Your task to perform on an android device: toggle translation in the chrome app Image 0: 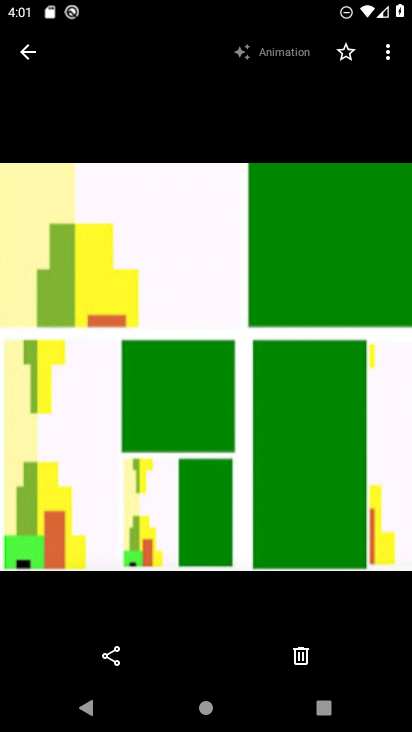
Step 0: press home button
Your task to perform on an android device: toggle translation in the chrome app Image 1: 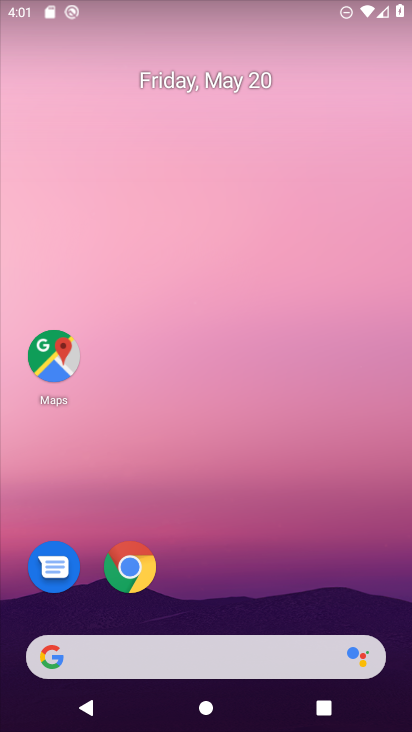
Step 1: click (129, 569)
Your task to perform on an android device: toggle translation in the chrome app Image 2: 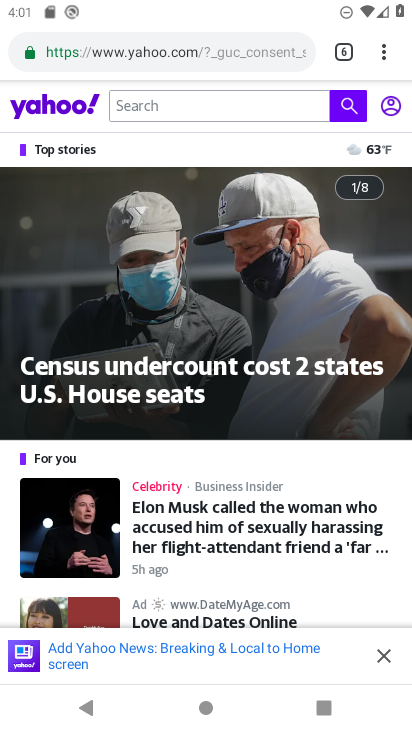
Step 2: click (383, 58)
Your task to perform on an android device: toggle translation in the chrome app Image 3: 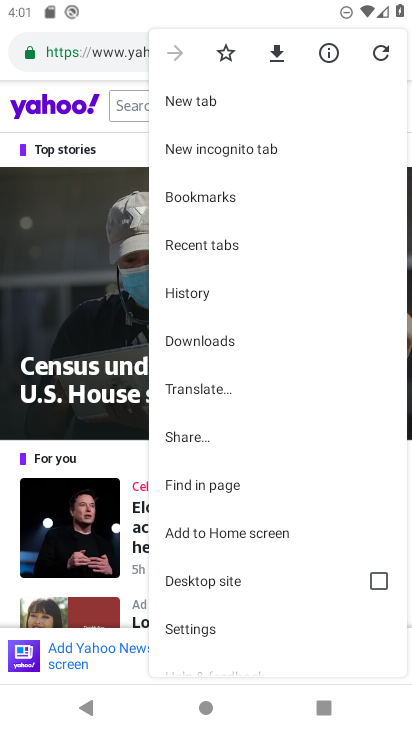
Step 3: click (192, 629)
Your task to perform on an android device: toggle translation in the chrome app Image 4: 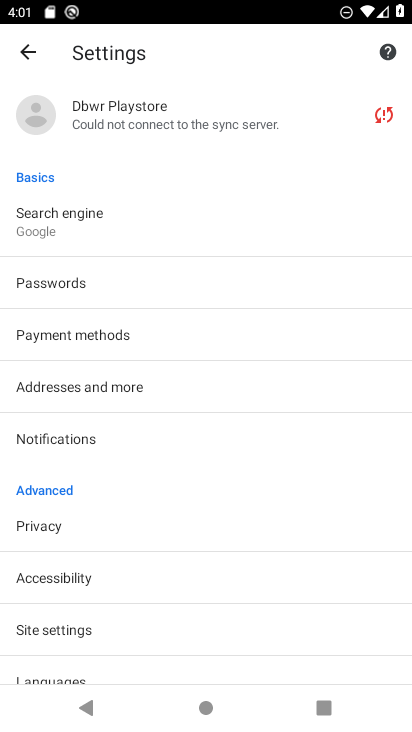
Step 4: click (53, 667)
Your task to perform on an android device: toggle translation in the chrome app Image 5: 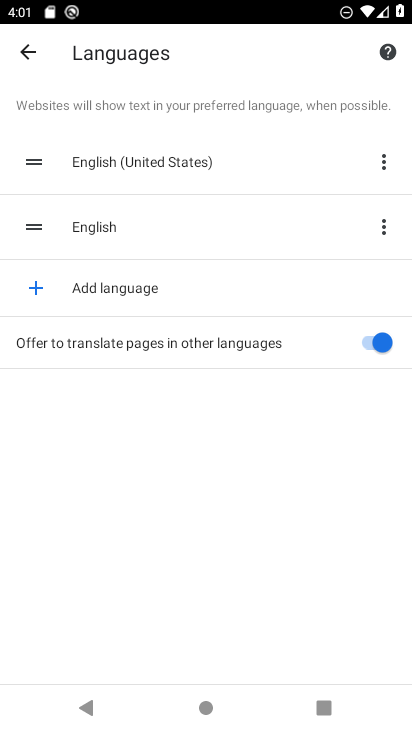
Step 5: click (367, 343)
Your task to perform on an android device: toggle translation in the chrome app Image 6: 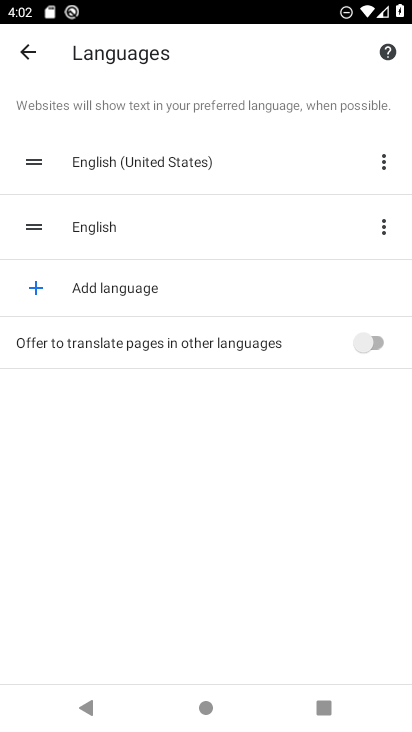
Step 6: task complete